Your task to perform on an android device: toggle airplane mode Image 0: 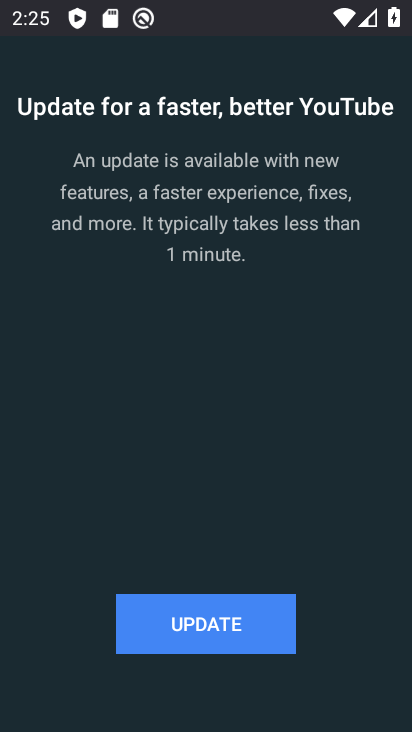
Step 0: press home button
Your task to perform on an android device: toggle airplane mode Image 1: 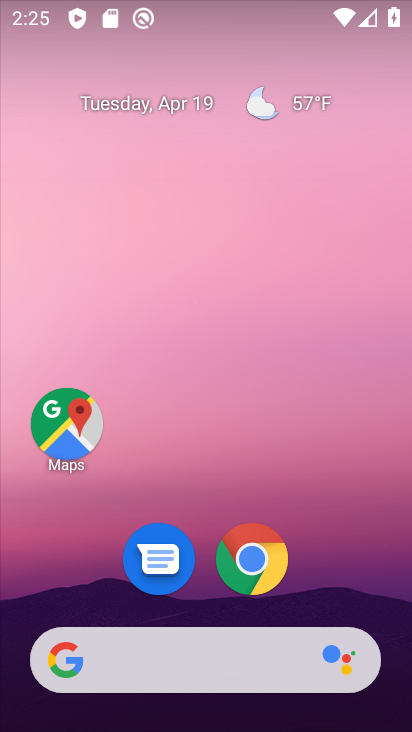
Step 1: drag from (385, 585) to (363, 107)
Your task to perform on an android device: toggle airplane mode Image 2: 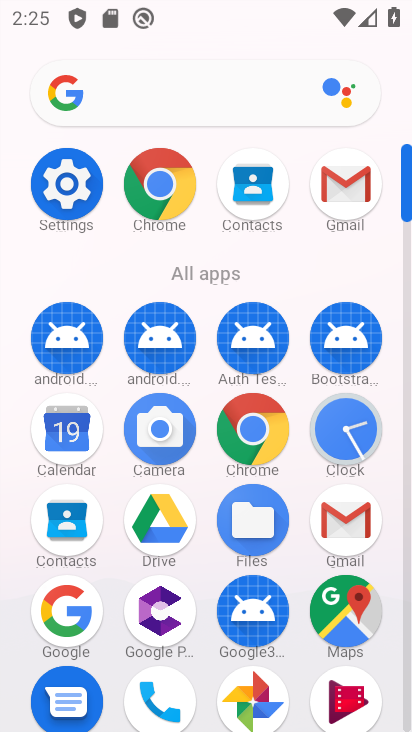
Step 2: click (67, 178)
Your task to perform on an android device: toggle airplane mode Image 3: 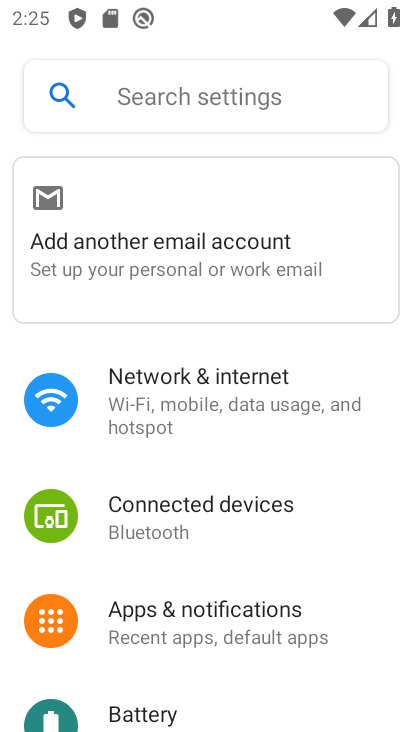
Step 3: drag from (379, 621) to (375, 417)
Your task to perform on an android device: toggle airplane mode Image 4: 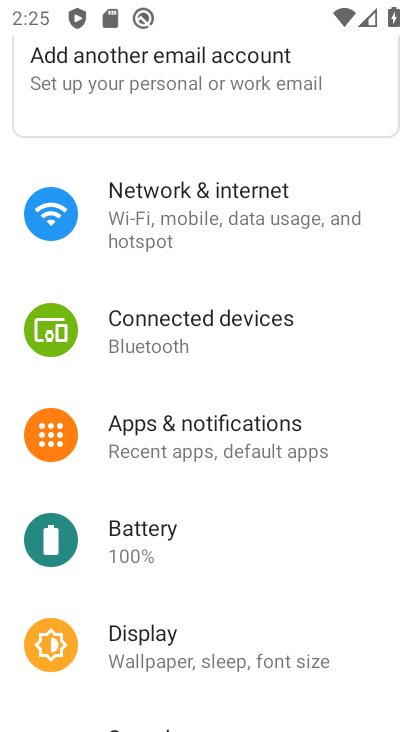
Step 4: drag from (373, 521) to (372, 331)
Your task to perform on an android device: toggle airplane mode Image 5: 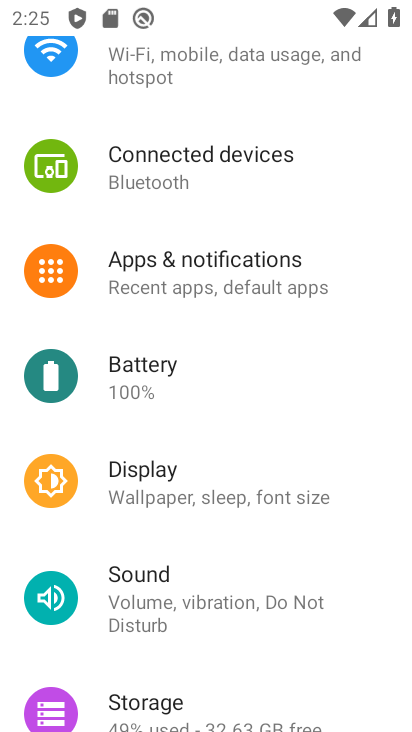
Step 5: drag from (372, 652) to (369, 296)
Your task to perform on an android device: toggle airplane mode Image 6: 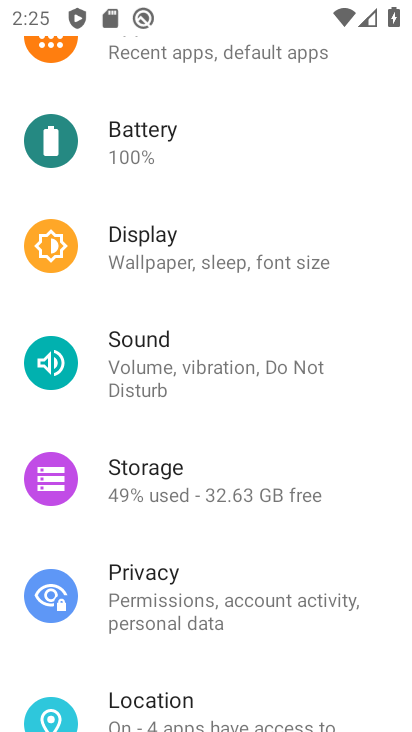
Step 6: drag from (376, 615) to (371, 361)
Your task to perform on an android device: toggle airplane mode Image 7: 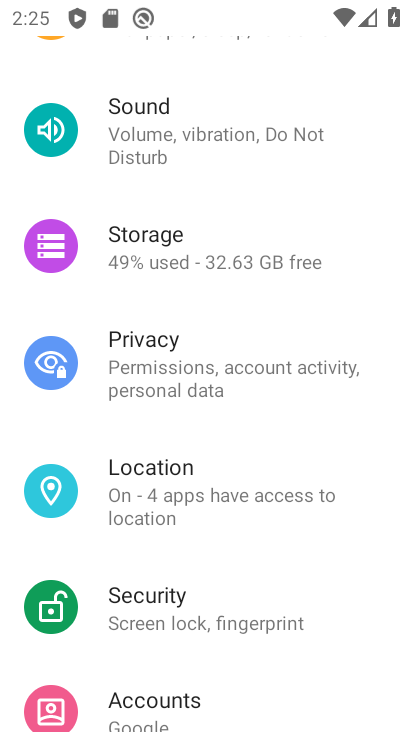
Step 7: drag from (377, 574) to (379, 282)
Your task to perform on an android device: toggle airplane mode Image 8: 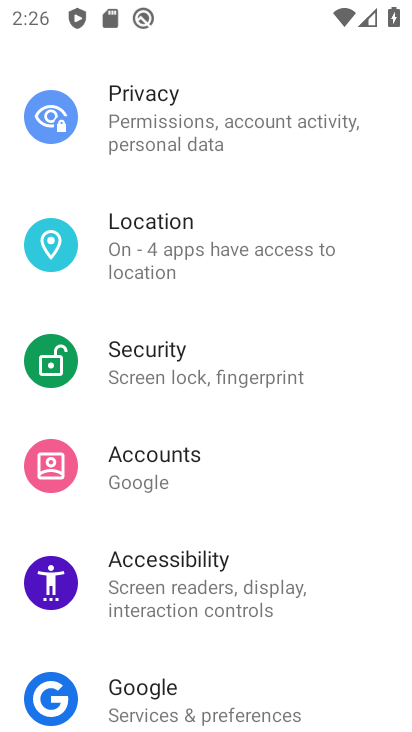
Step 8: drag from (361, 562) to (362, 329)
Your task to perform on an android device: toggle airplane mode Image 9: 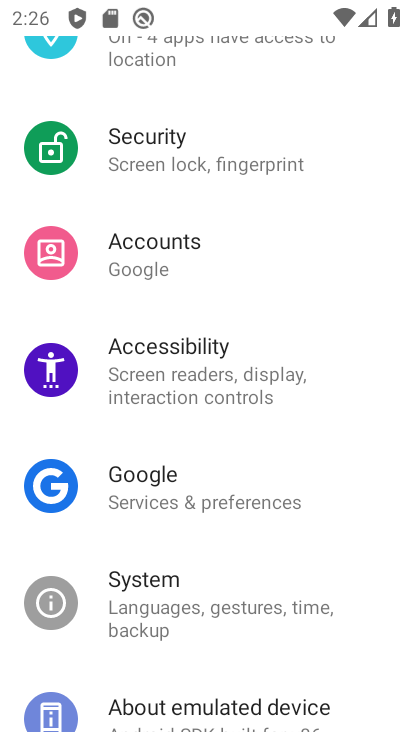
Step 9: drag from (368, 659) to (373, 431)
Your task to perform on an android device: toggle airplane mode Image 10: 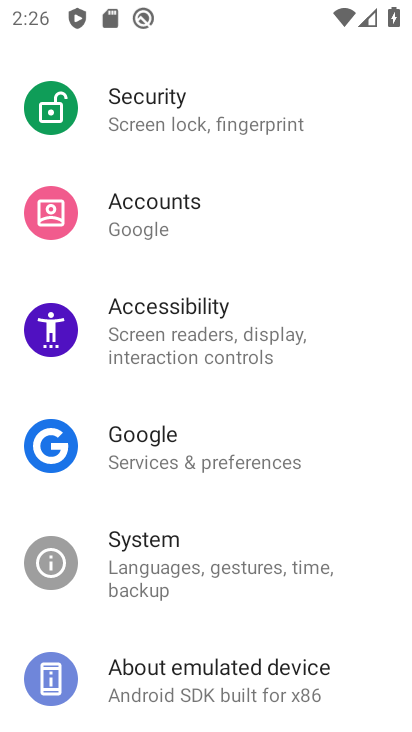
Step 10: drag from (371, 325) to (362, 546)
Your task to perform on an android device: toggle airplane mode Image 11: 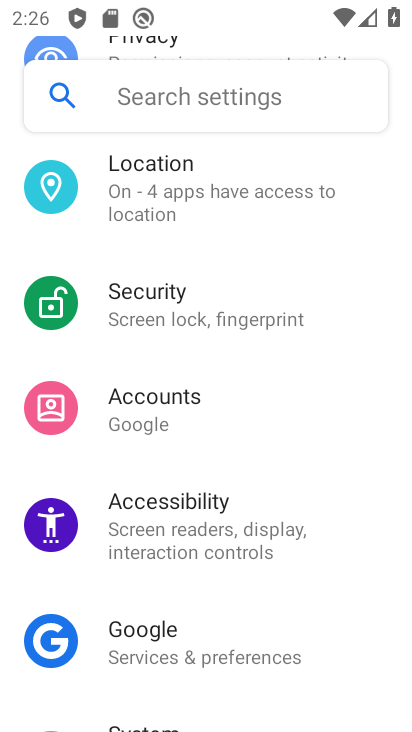
Step 11: drag from (365, 279) to (369, 498)
Your task to perform on an android device: toggle airplane mode Image 12: 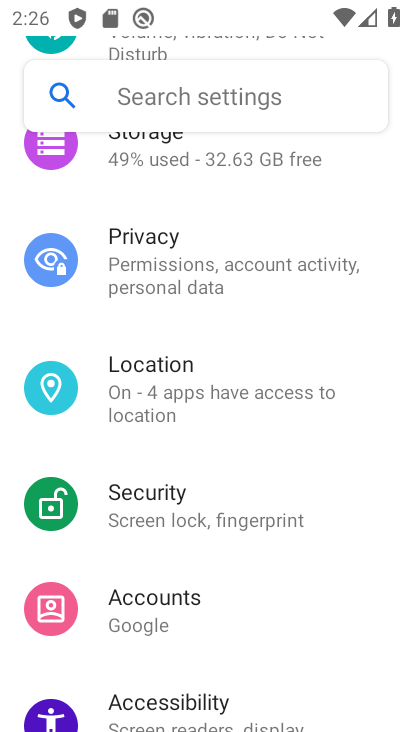
Step 12: drag from (378, 316) to (380, 565)
Your task to perform on an android device: toggle airplane mode Image 13: 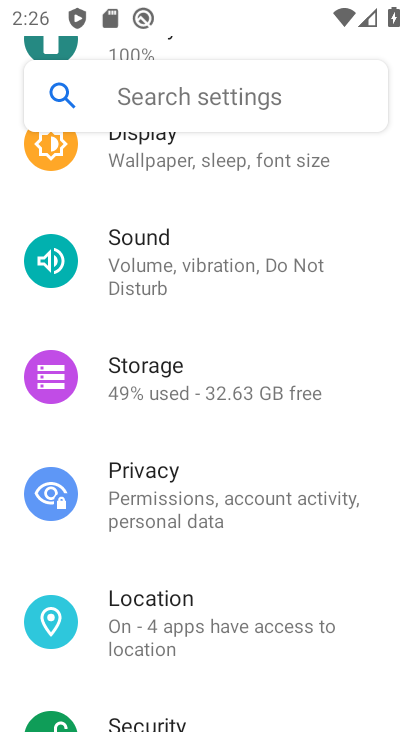
Step 13: drag from (368, 364) to (390, 578)
Your task to perform on an android device: toggle airplane mode Image 14: 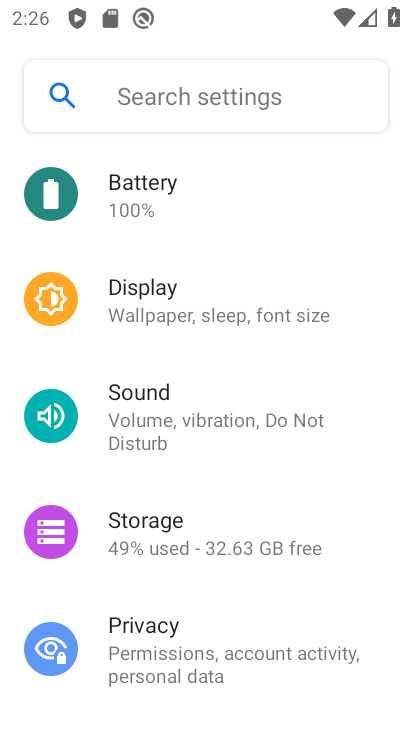
Step 14: drag from (373, 265) to (368, 484)
Your task to perform on an android device: toggle airplane mode Image 15: 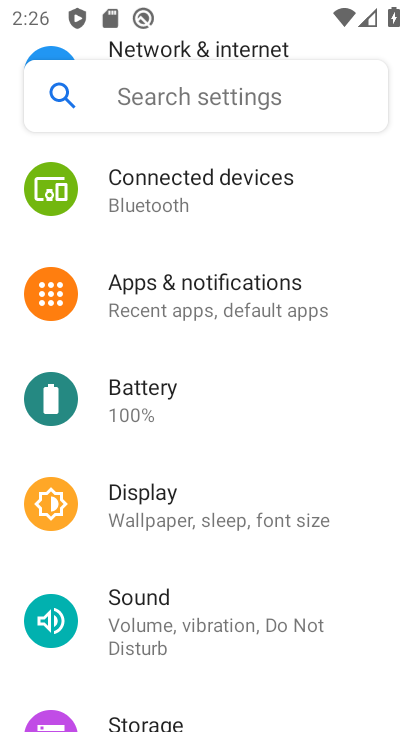
Step 15: drag from (370, 219) to (380, 432)
Your task to perform on an android device: toggle airplane mode Image 16: 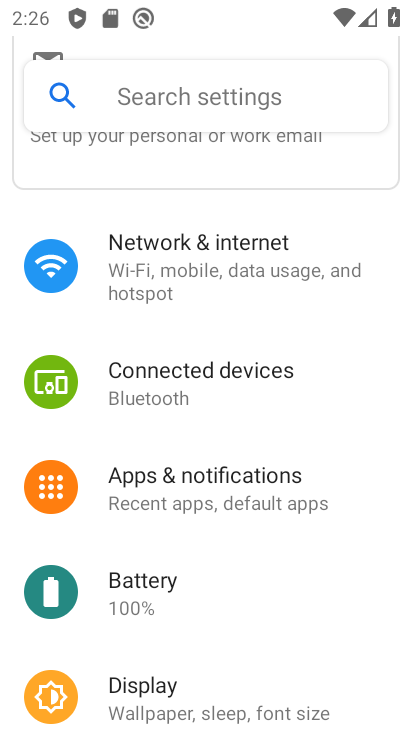
Step 16: click (255, 252)
Your task to perform on an android device: toggle airplane mode Image 17: 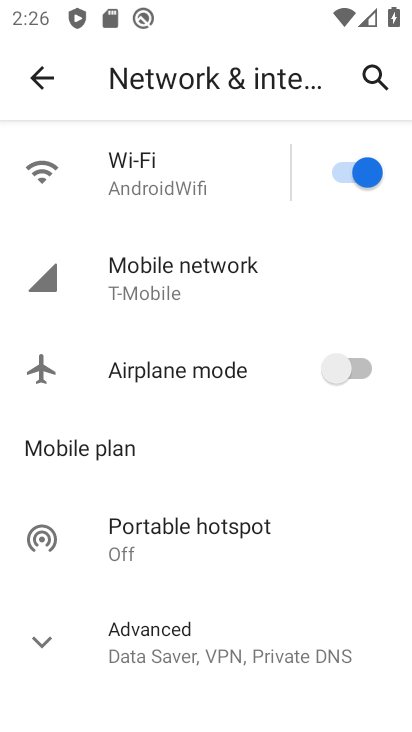
Step 17: click (348, 373)
Your task to perform on an android device: toggle airplane mode Image 18: 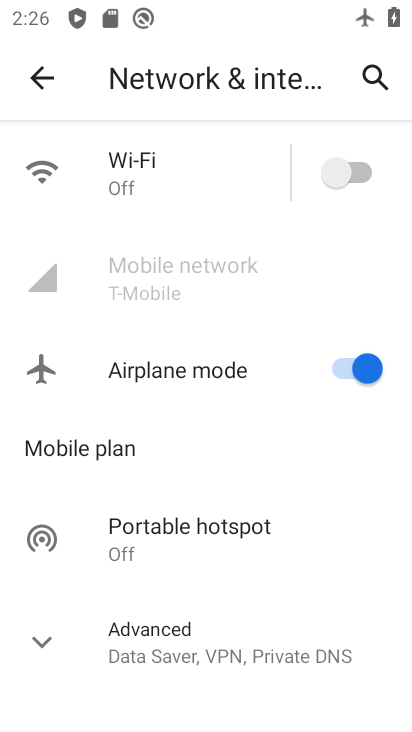
Step 18: task complete